Your task to perform on an android device: read, delete, or share a saved page in the chrome app Image 0: 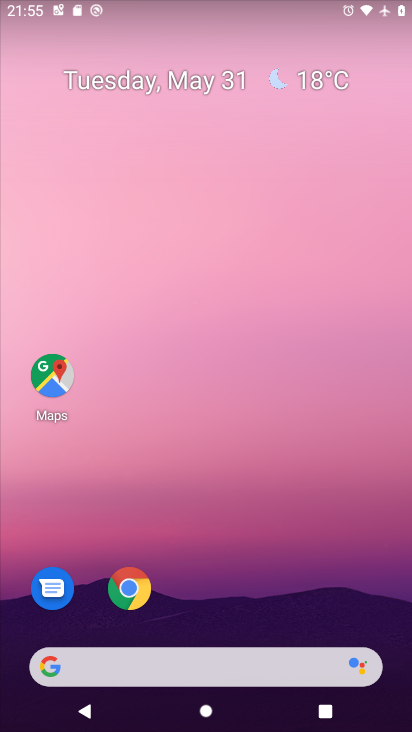
Step 0: click (125, 591)
Your task to perform on an android device: read, delete, or share a saved page in the chrome app Image 1: 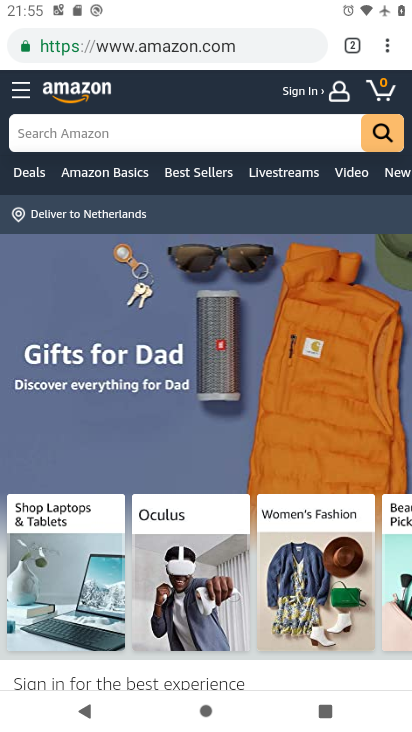
Step 1: drag from (387, 45) to (274, 294)
Your task to perform on an android device: read, delete, or share a saved page in the chrome app Image 2: 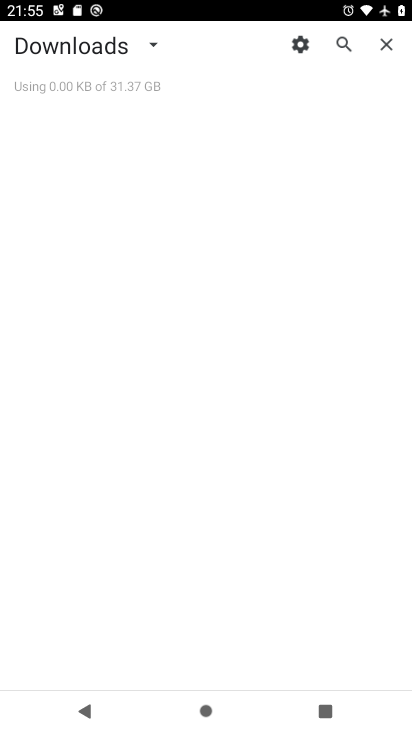
Step 2: click (149, 40)
Your task to perform on an android device: read, delete, or share a saved page in the chrome app Image 3: 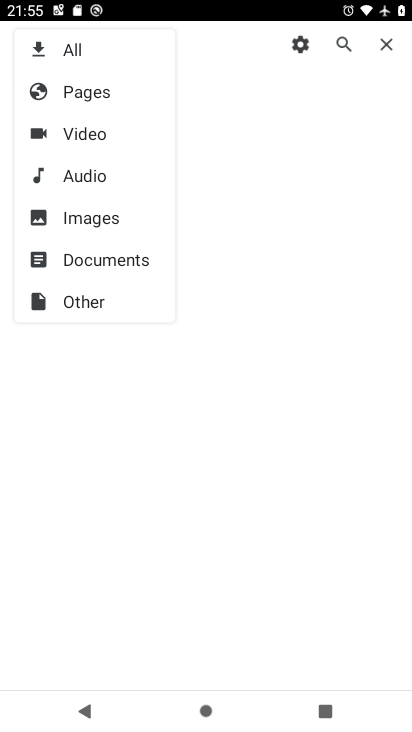
Step 3: click (92, 89)
Your task to perform on an android device: read, delete, or share a saved page in the chrome app Image 4: 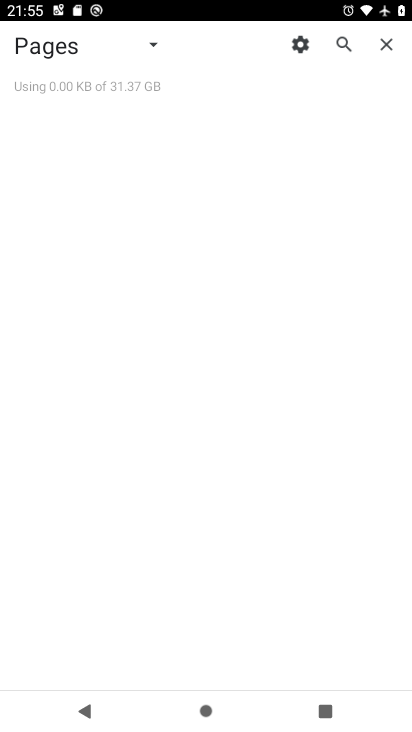
Step 4: task complete